Your task to perform on an android device: Go to ESPN.com Image 0: 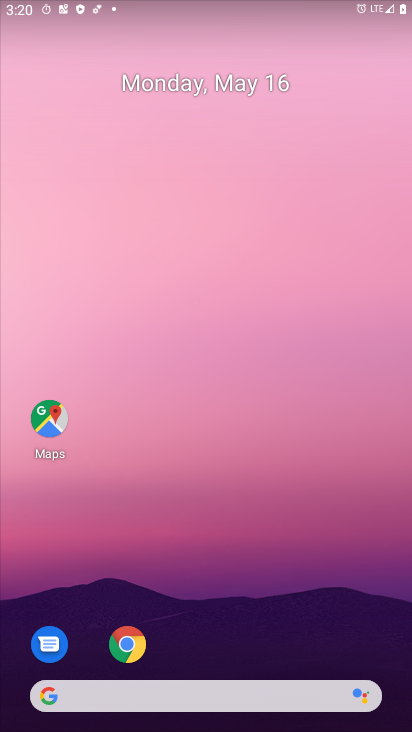
Step 0: drag from (213, 652) to (189, 163)
Your task to perform on an android device: Go to ESPN.com Image 1: 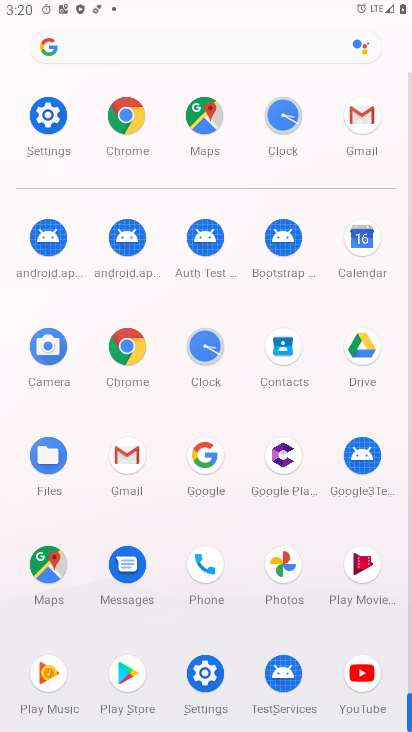
Step 1: click (124, 145)
Your task to perform on an android device: Go to ESPN.com Image 2: 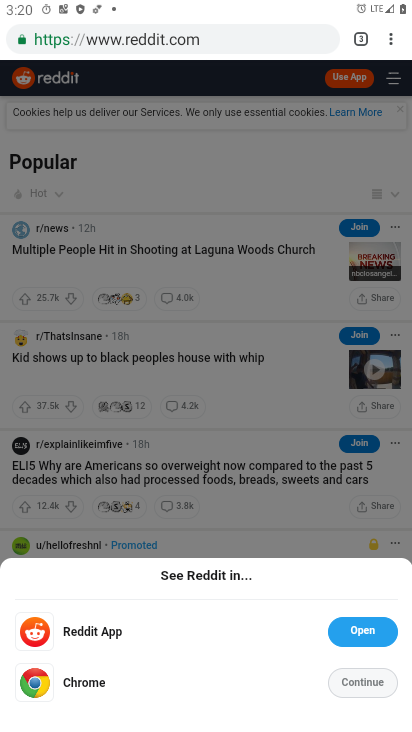
Step 2: click (194, 42)
Your task to perform on an android device: Go to ESPN.com Image 3: 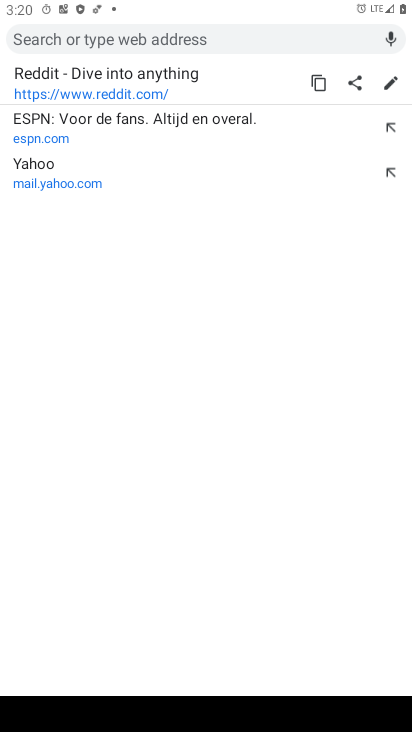
Step 3: type "espn"
Your task to perform on an android device: Go to ESPN.com Image 4: 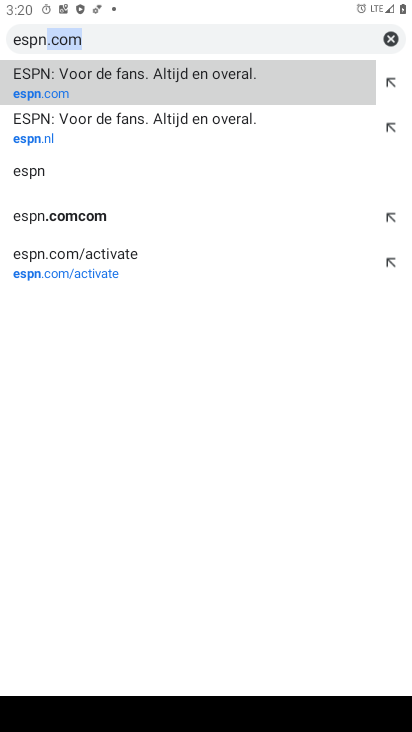
Step 4: click (156, 88)
Your task to perform on an android device: Go to ESPN.com Image 5: 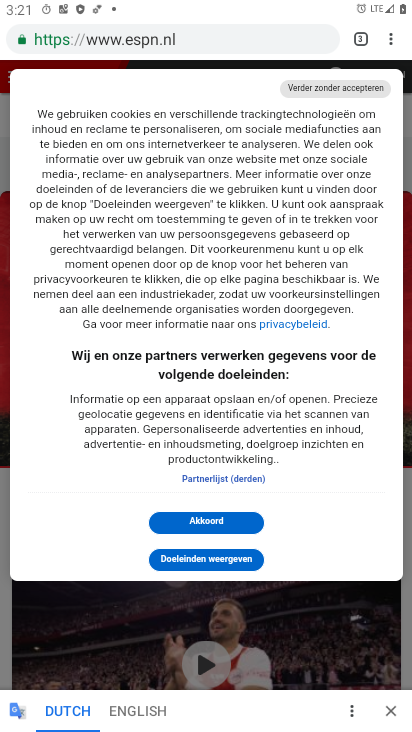
Step 5: task complete